Your task to perform on an android device: turn off translation in the chrome app Image 0: 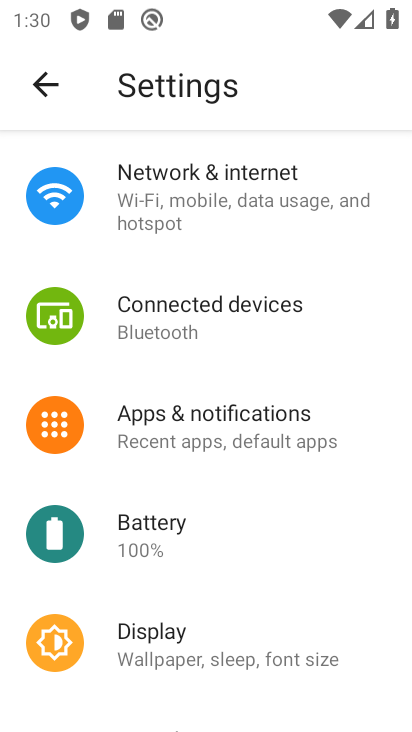
Step 0: drag from (328, 539) to (317, 260)
Your task to perform on an android device: turn off translation in the chrome app Image 1: 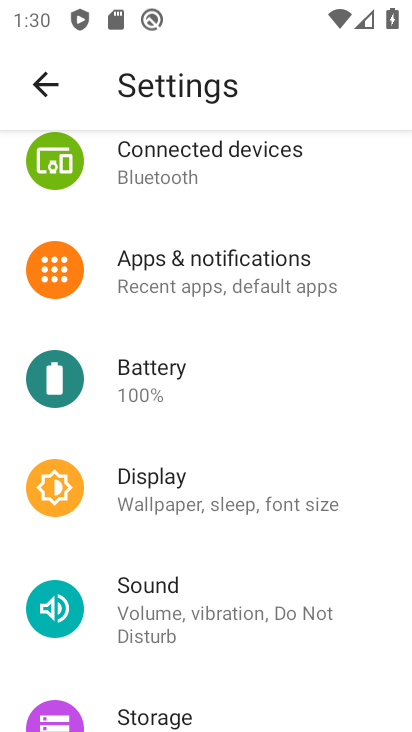
Step 1: drag from (325, 591) to (326, 298)
Your task to perform on an android device: turn off translation in the chrome app Image 2: 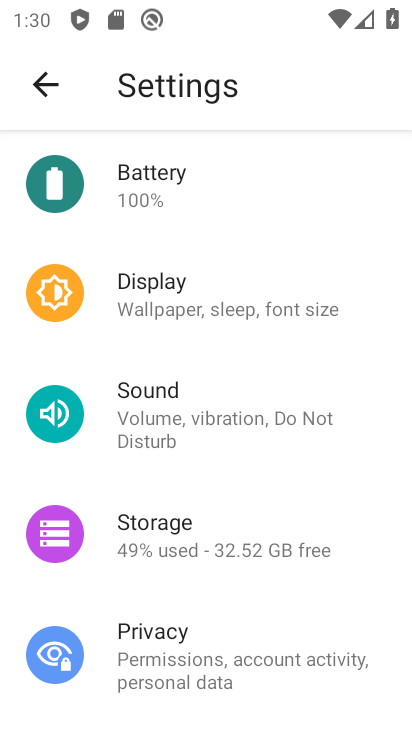
Step 2: drag from (320, 537) to (320, 196)
Your task to perform on an android device: turn off translation in the chrome app Image 3: 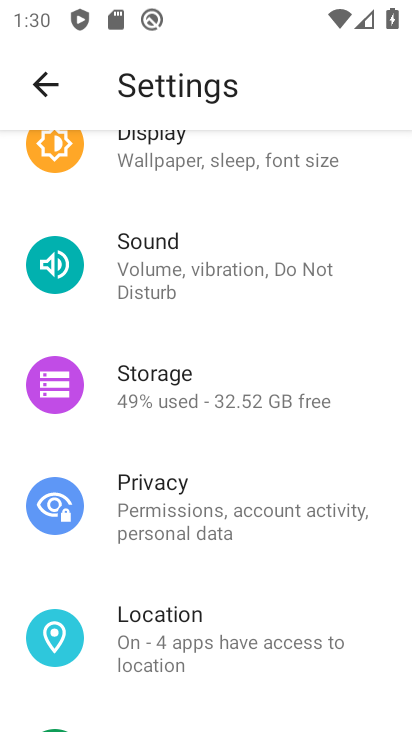
Step 3: drag from (304, 594) to (304, 236)
Your task to perform on an android device: turn off translation in the chrome app Image 4: 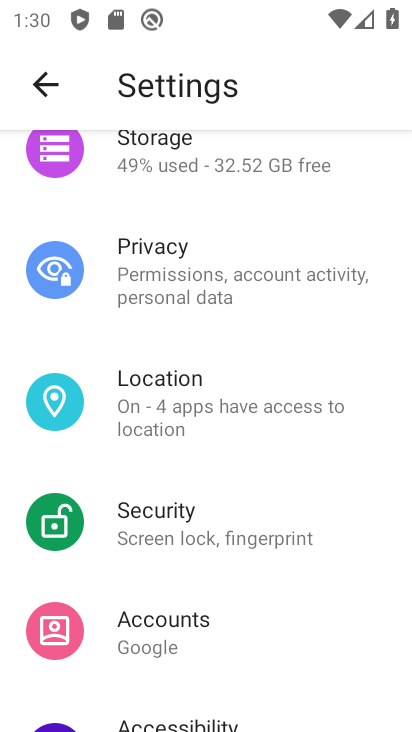
Step 4: drag from (286, 631) to (280, 427)
Your task to perform on an android device: turn off translation in the chrome app Image 5: 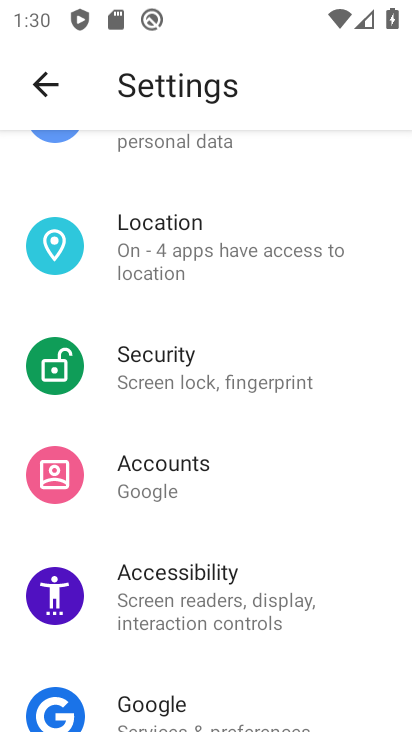
Step 5: press home button
Your task to perform on an android device: turn off translation in the chrome app Image 6: 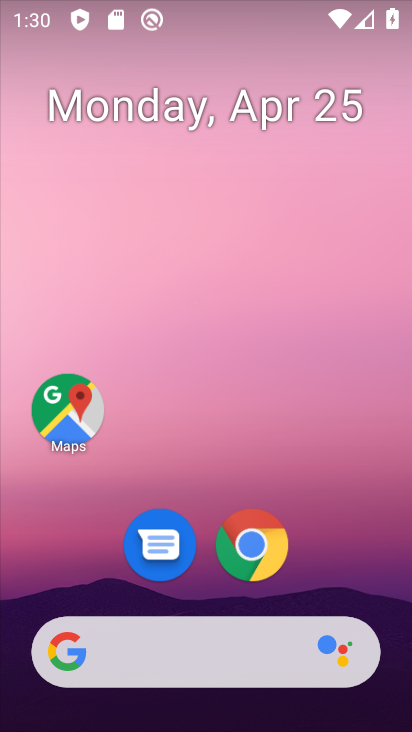
Step 6: click (261, 559)
Your task to perform on an android device: turn off translation in the chrome app Image 7: 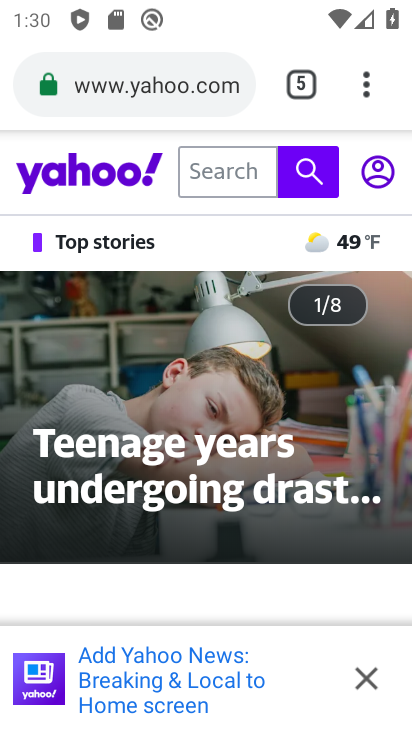
Step 7: click (365, 80)
Your task to perform on an android device: turn off translation in the chrome app Image 8: 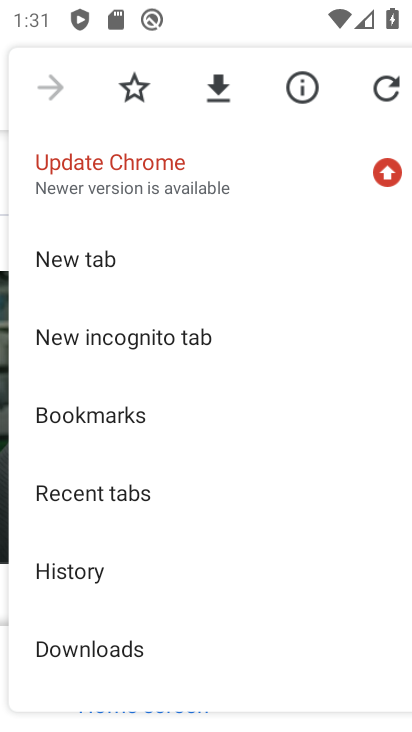
Step 8: drag from (222, 604) to (197, 266)
Your task to perform on an android device: turn off translation in the chrome app Image 9: 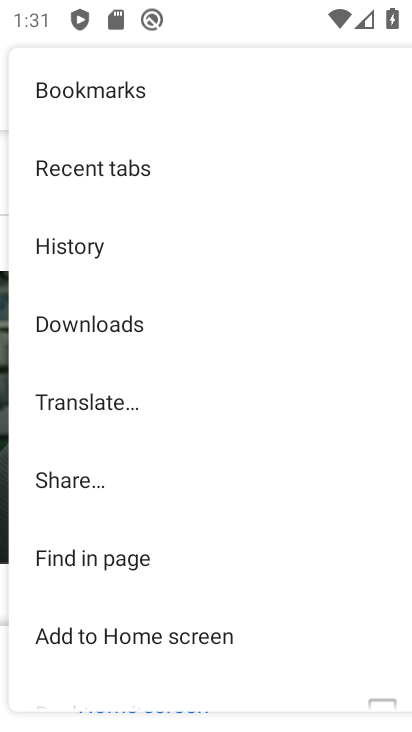
Step 9: drag from (200, 579) to (198, 320)
Your task to perform on an android device: turn off translation in the chrome app Image 10: 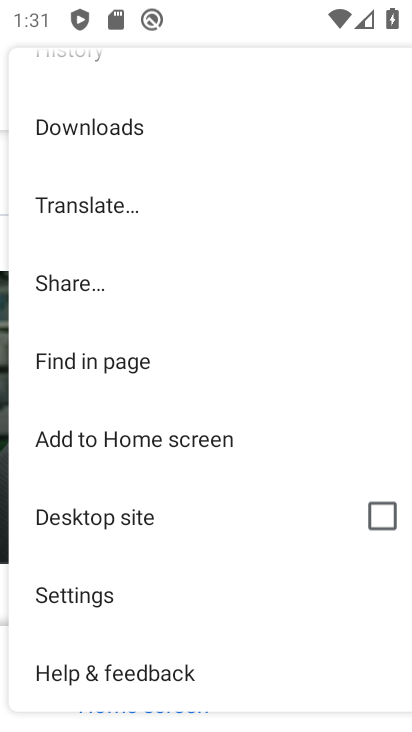
Step 10: click (108, 587)
Your task to perform on an android device: turn off translation in the chrome app Image 11: 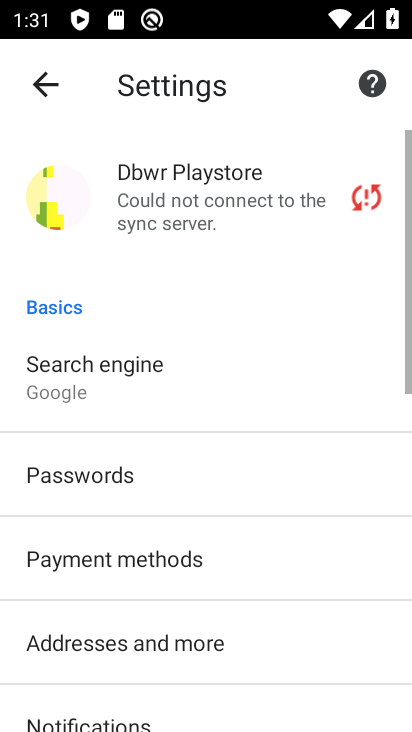
Step 11: drag from (232, 676) to (216, 264)
Your task to perform on an android device: turn off translation in the chrome app Image 12: 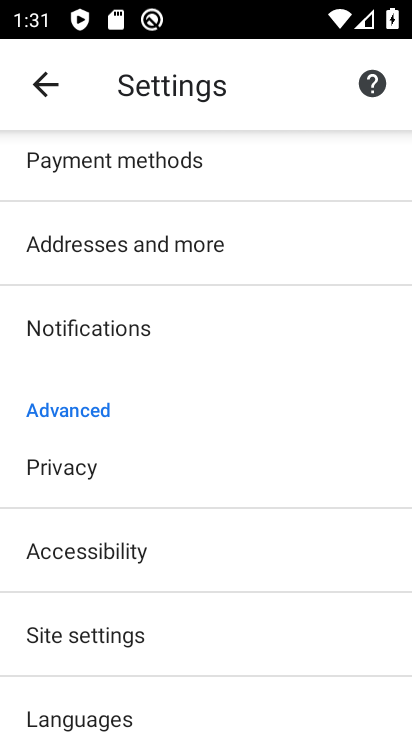
Step 12: click (191, 701)
Your task to perform on an android device: turn off translation in the chrome app Image 13: 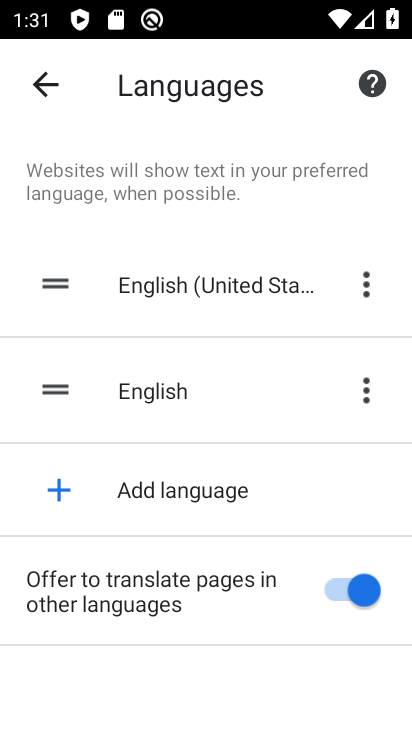
Step 13: click (320, 577)
Your task to perform on an android device: turn off translation in the chrome app Image 14: 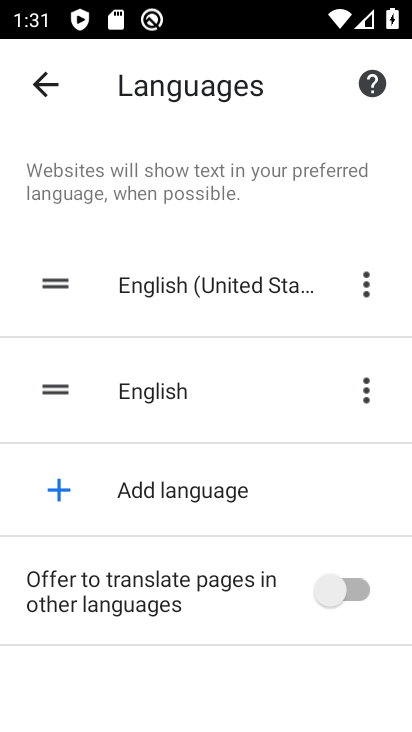
Step 14: task complete